Your task to perform on an android device: Open network settings Image 0: 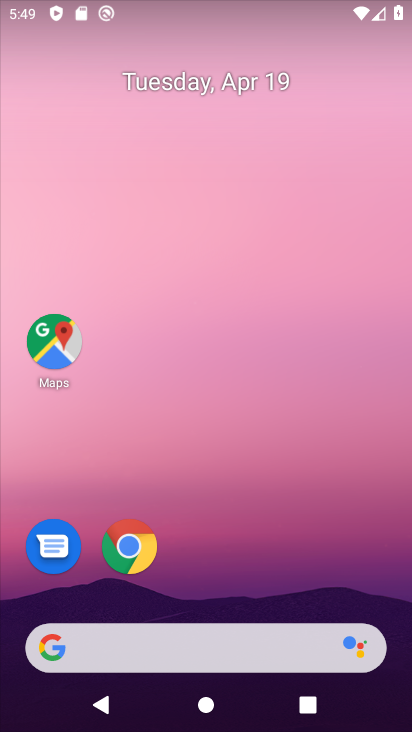
Step 0: drag from (254, 569) to (221, 107)
Your task to perform on an android device: Open network settings Image 1: 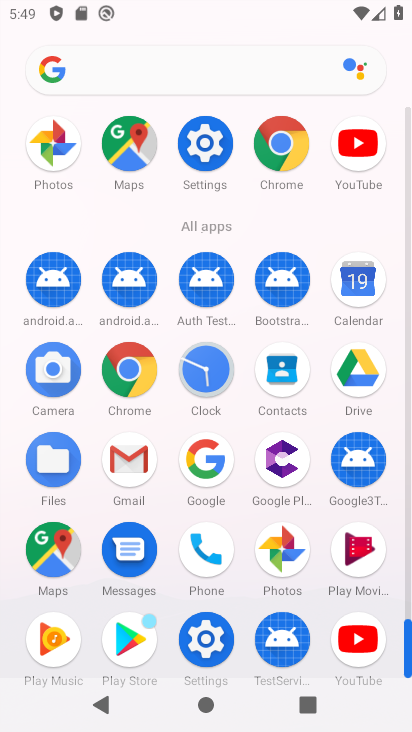
Step 1: click (215, 632)
Your task to perform on an android device: Open network settings Image 2: 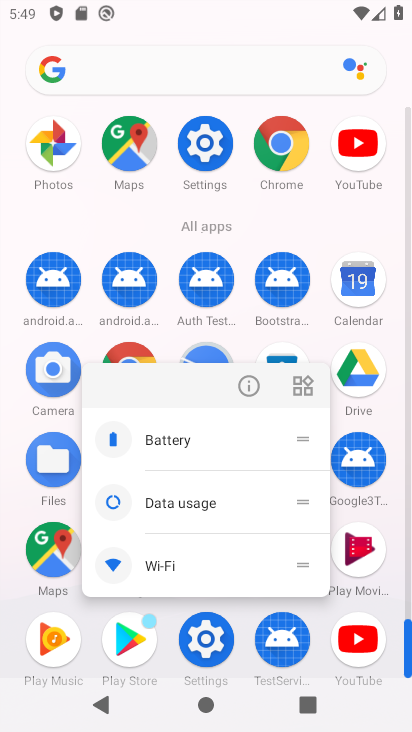
Step 2: click (211, 639)
Your task to perform on an android device: Open network settings Image 3: 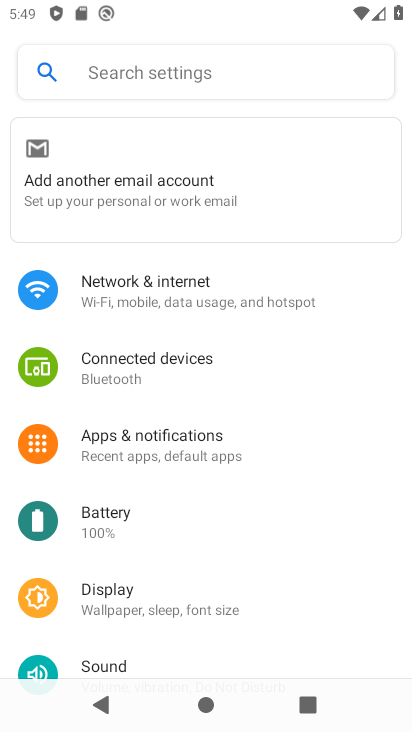
Step 3: click (171, 298)
Your task to perform on an android device: Open network settings Image 4: 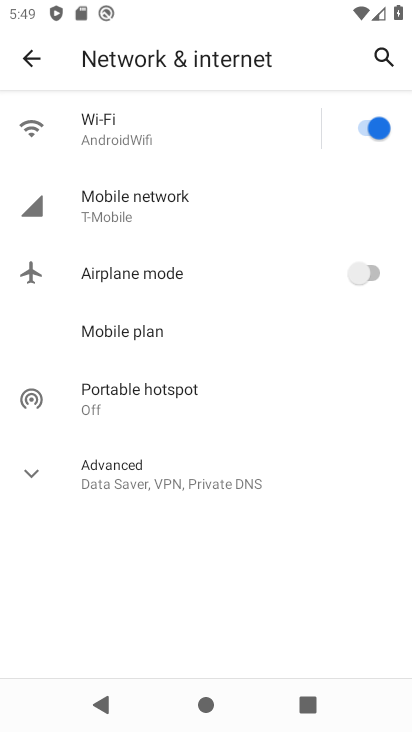
Step 4: task complete